Your task to perform on an android device: Go to Yahoo.com Image 0: 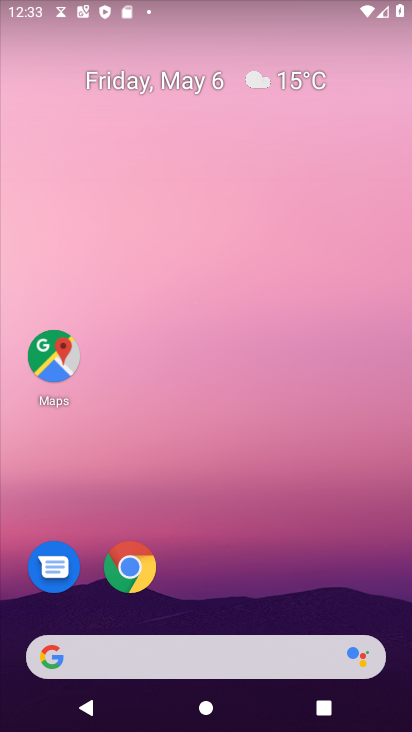
Step 0: drag from (288, 547) to (306, 49)
Your task to perform on an android device: Go to Yahoo.com Image 1: 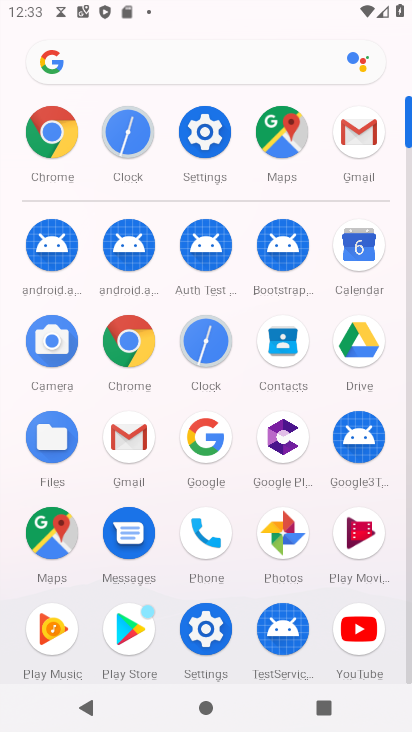
Step 1: click (54, 136)
Your task to perform on an android device: Go to Yahoo.com Image 2: 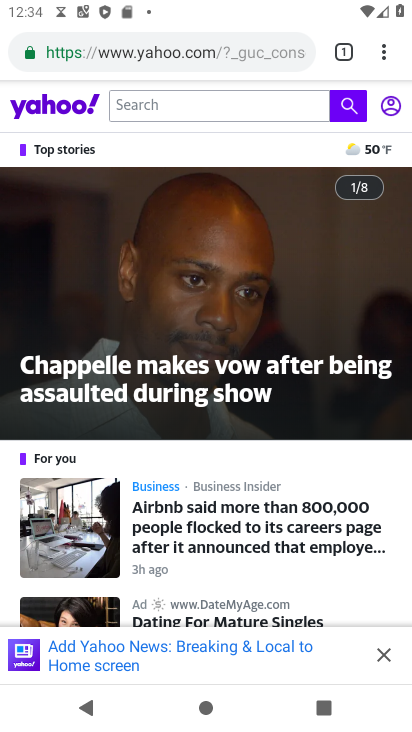
Step 2: task complete